Your task to perform on an android device: Check the weather Image 0: 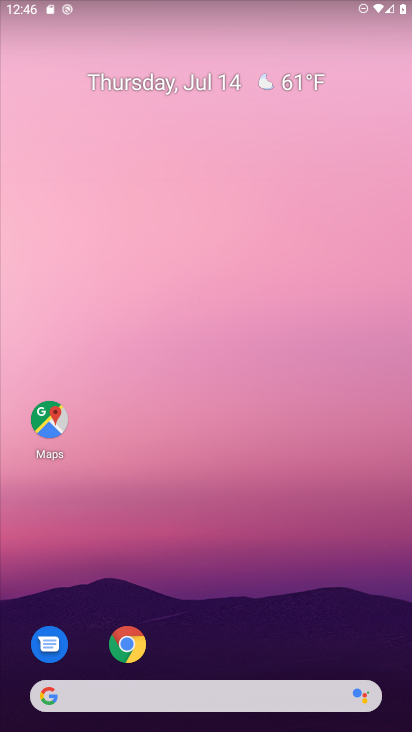
Step 0: click (309, 80)
Your task to perform on an android device: Check the weather Image 1: 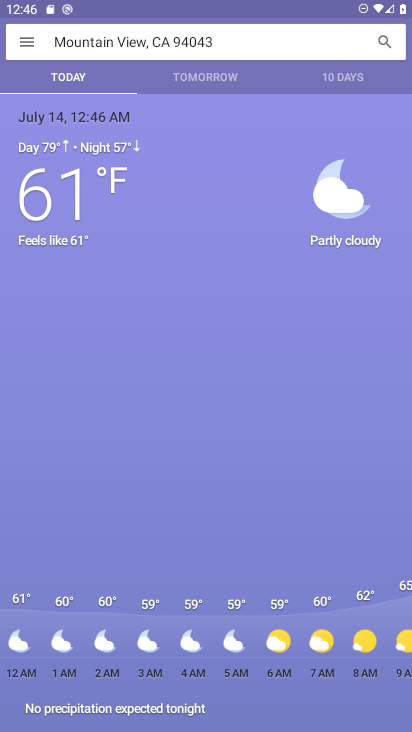
Step 1: task complete